Your task to perform on an android device: Search for a new bronzer Image 0: 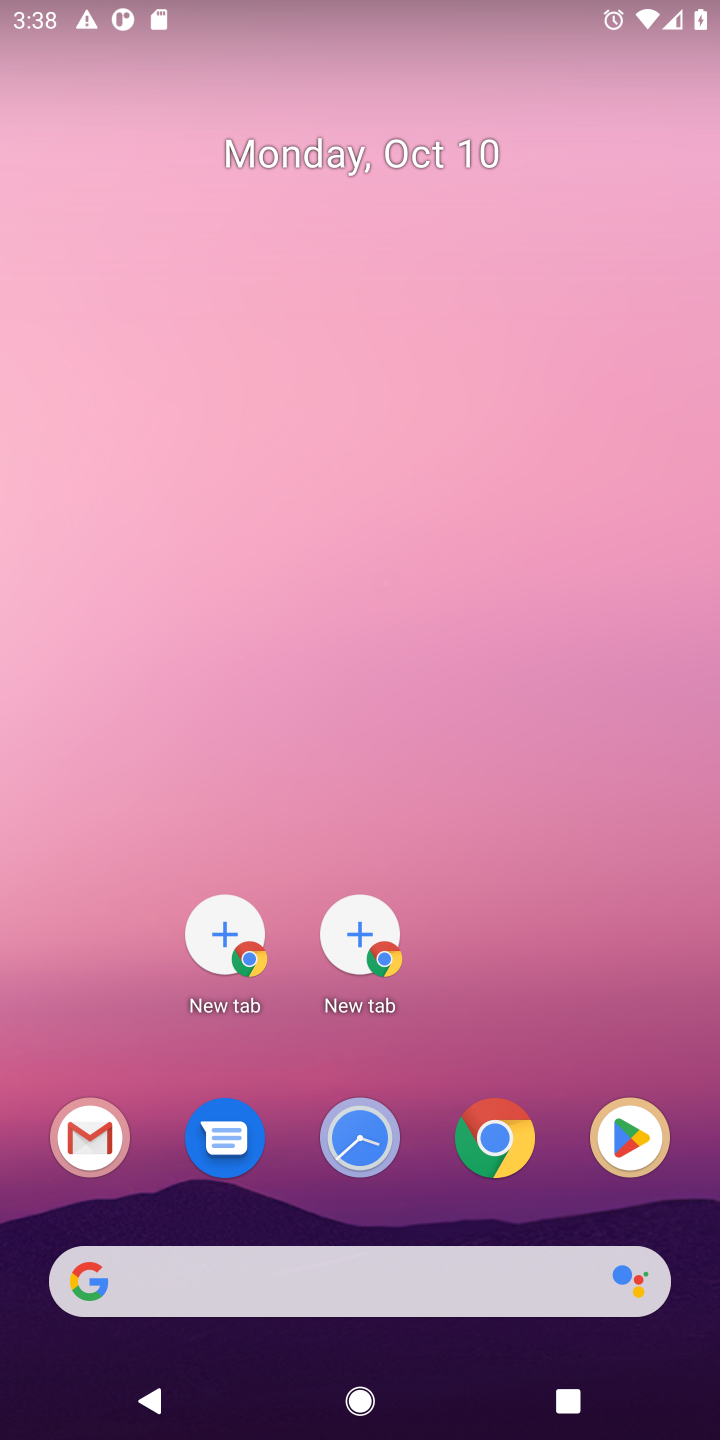
Step 0: click (509, 1152)
Your task to perform on an android device: Search for a new bronzer Image 1: 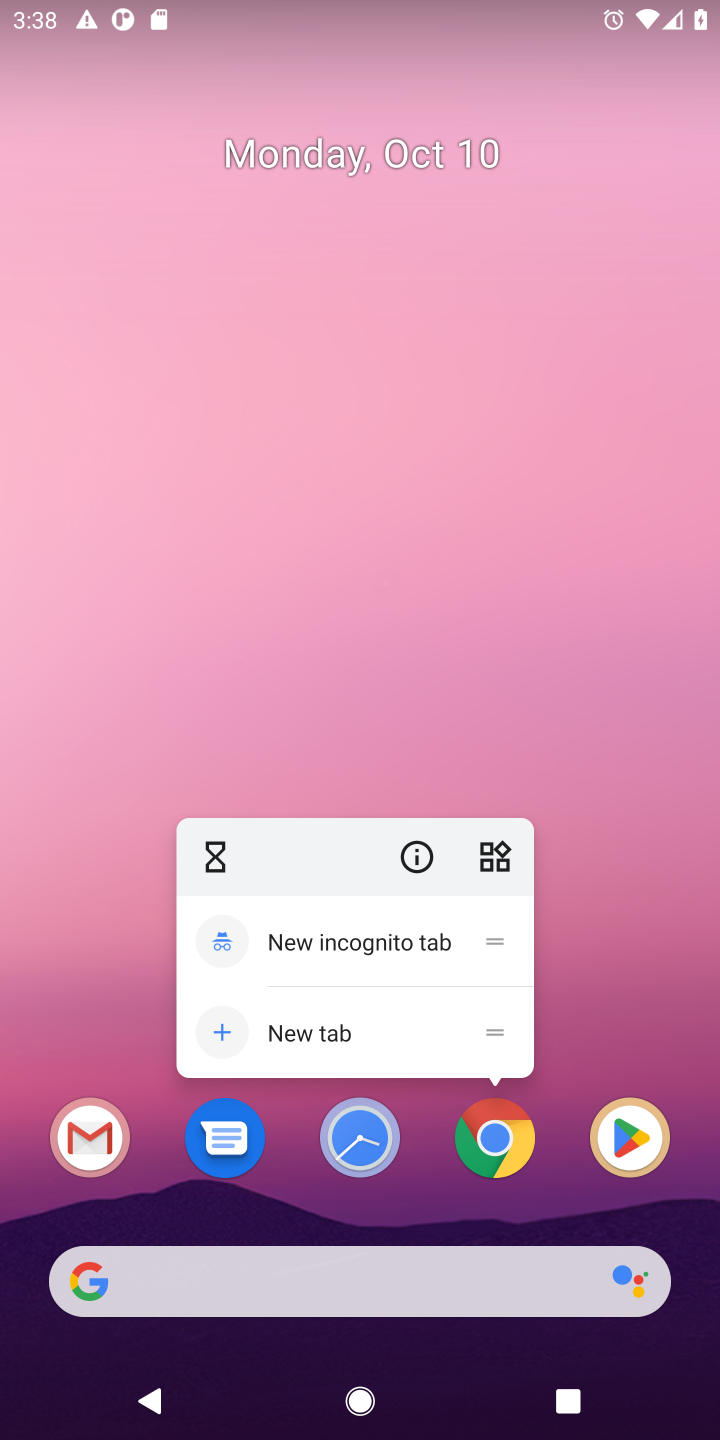
Step 1: click (491, 1151)
Your task to perform on an android device: Search for a new bronzer Image 2: 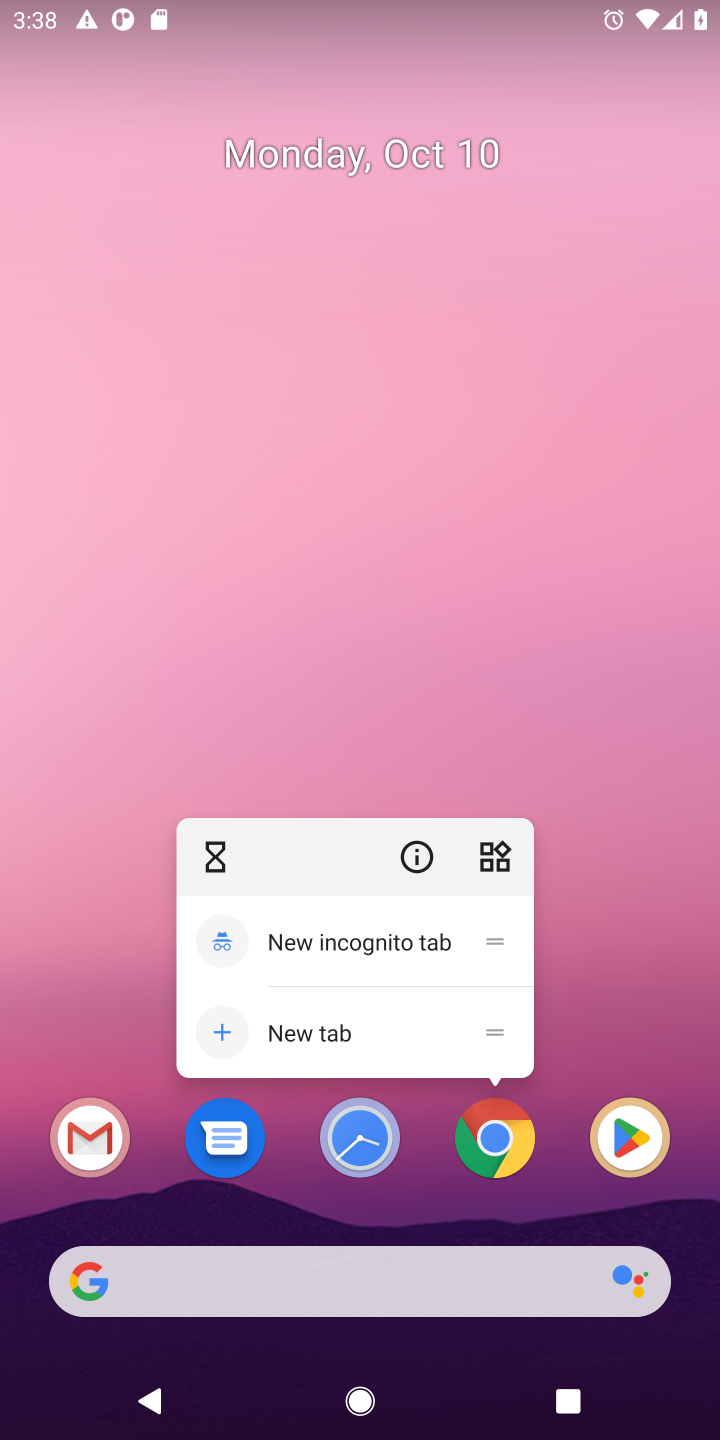
Step 2: click (501, 1152)
Your task to perform on an android device: Search for a new bronzer Image 3: 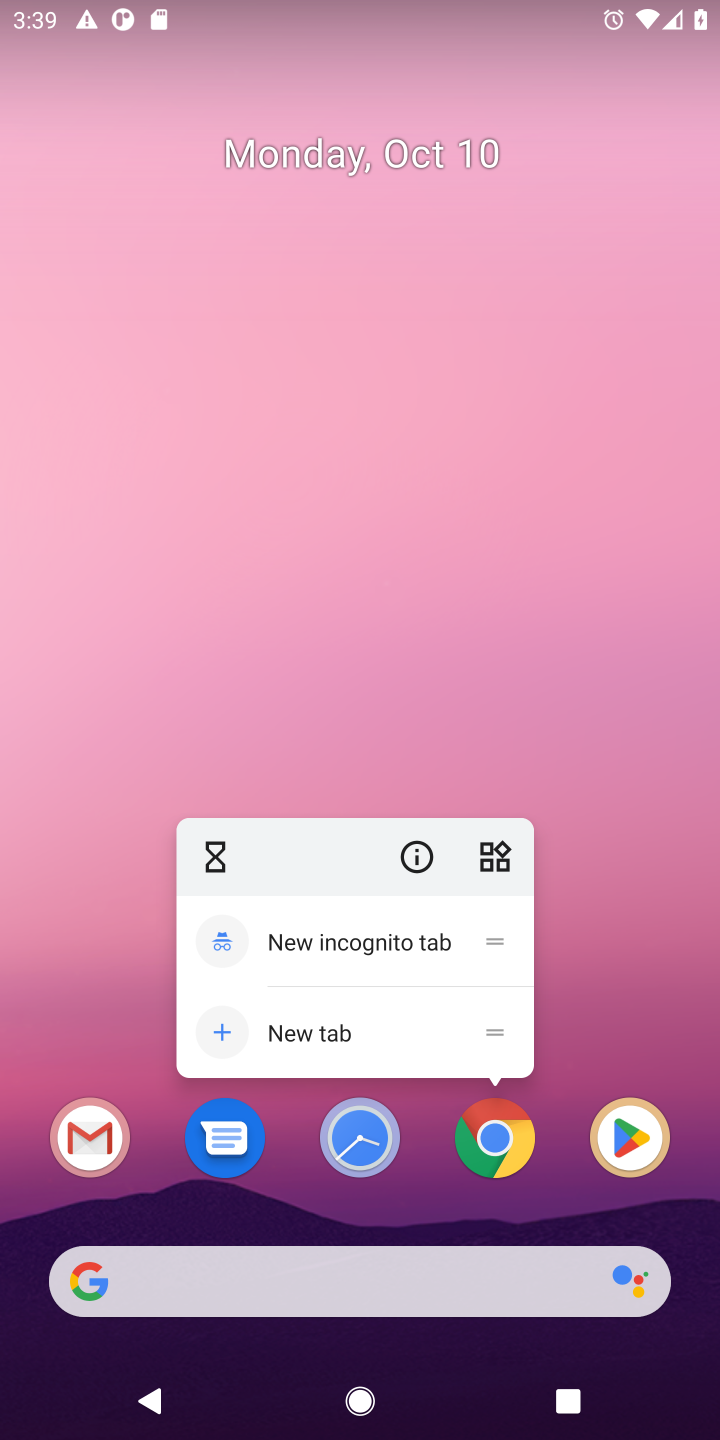
Step 3: click (507, 1177)
Your task to perform on an android device: Search for a new bronzer Image 4: 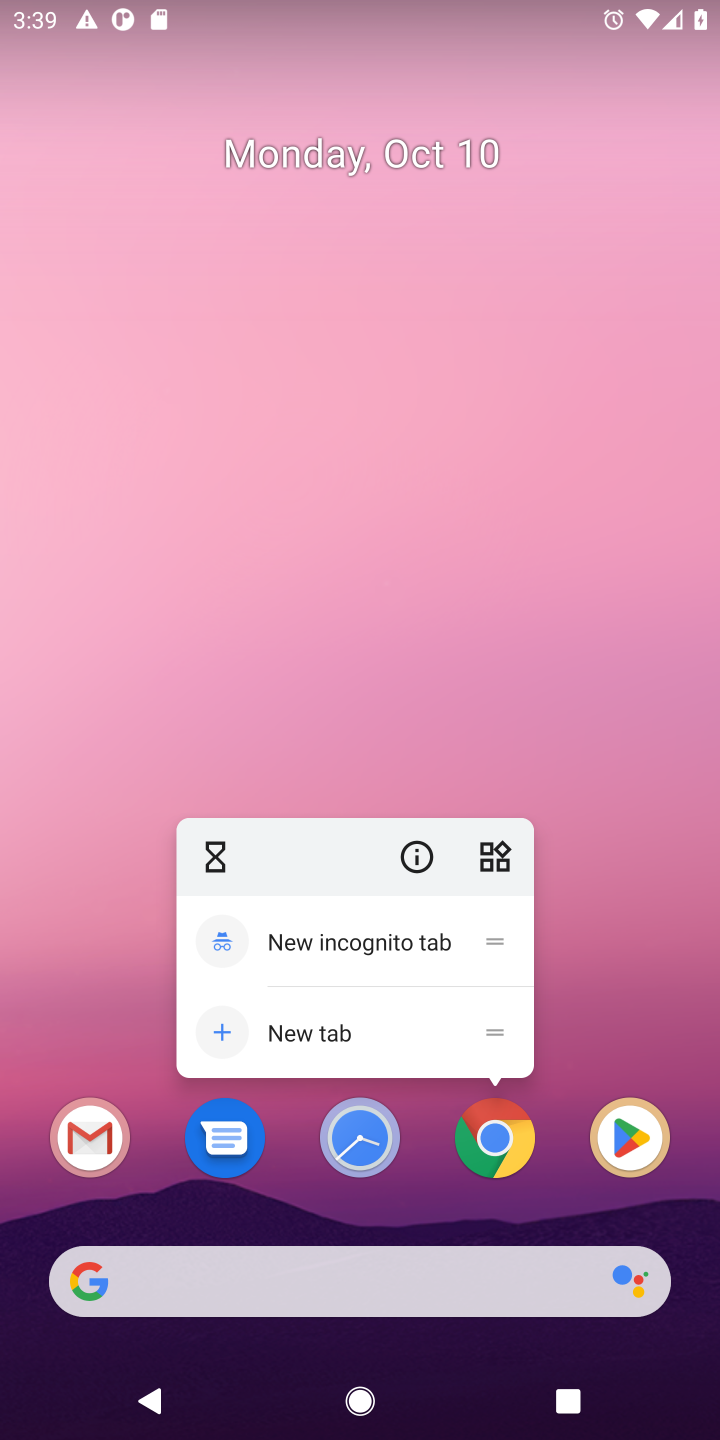
Step 4: click (507, 1160)
Your task to perform on an android device: Search for a new bronzer Image 5: 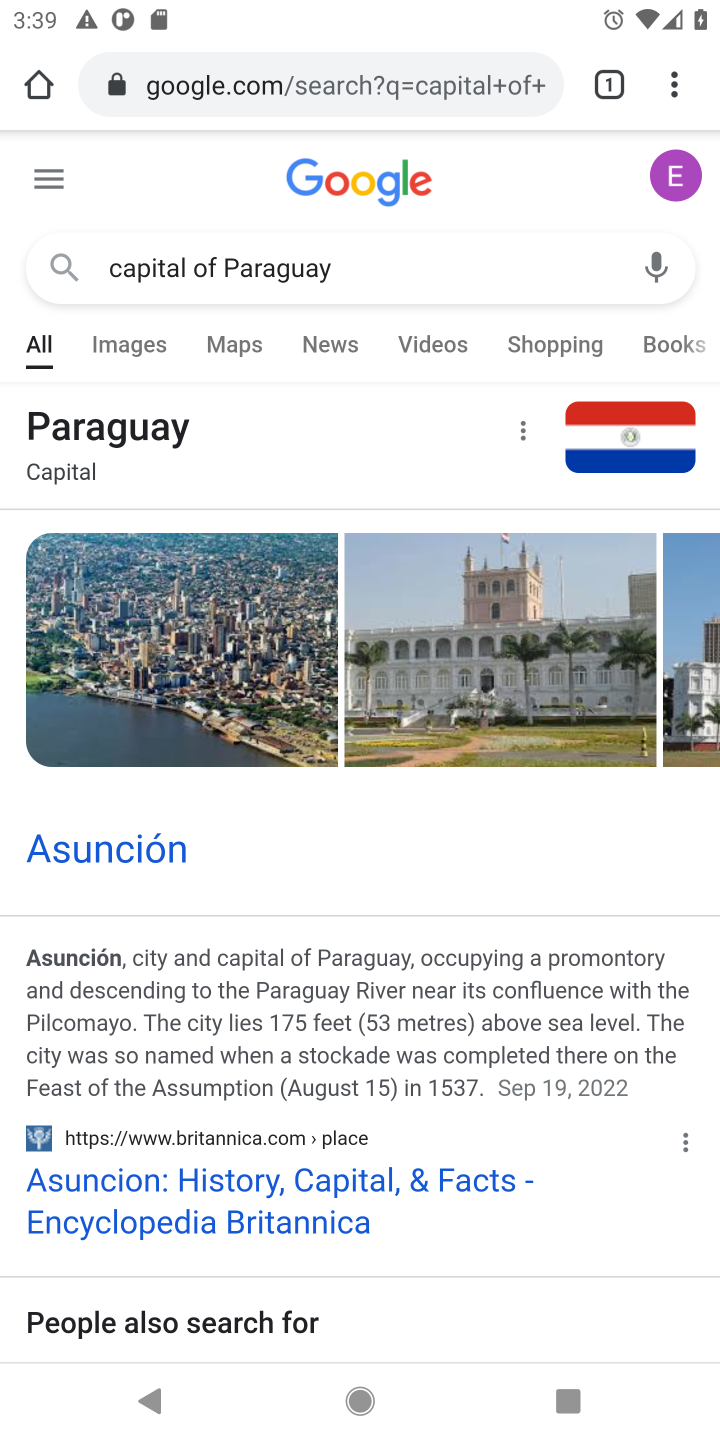
Step 5: click (355, 269)
Your task to perform on an android device: Search for a new bronzer Image 6: 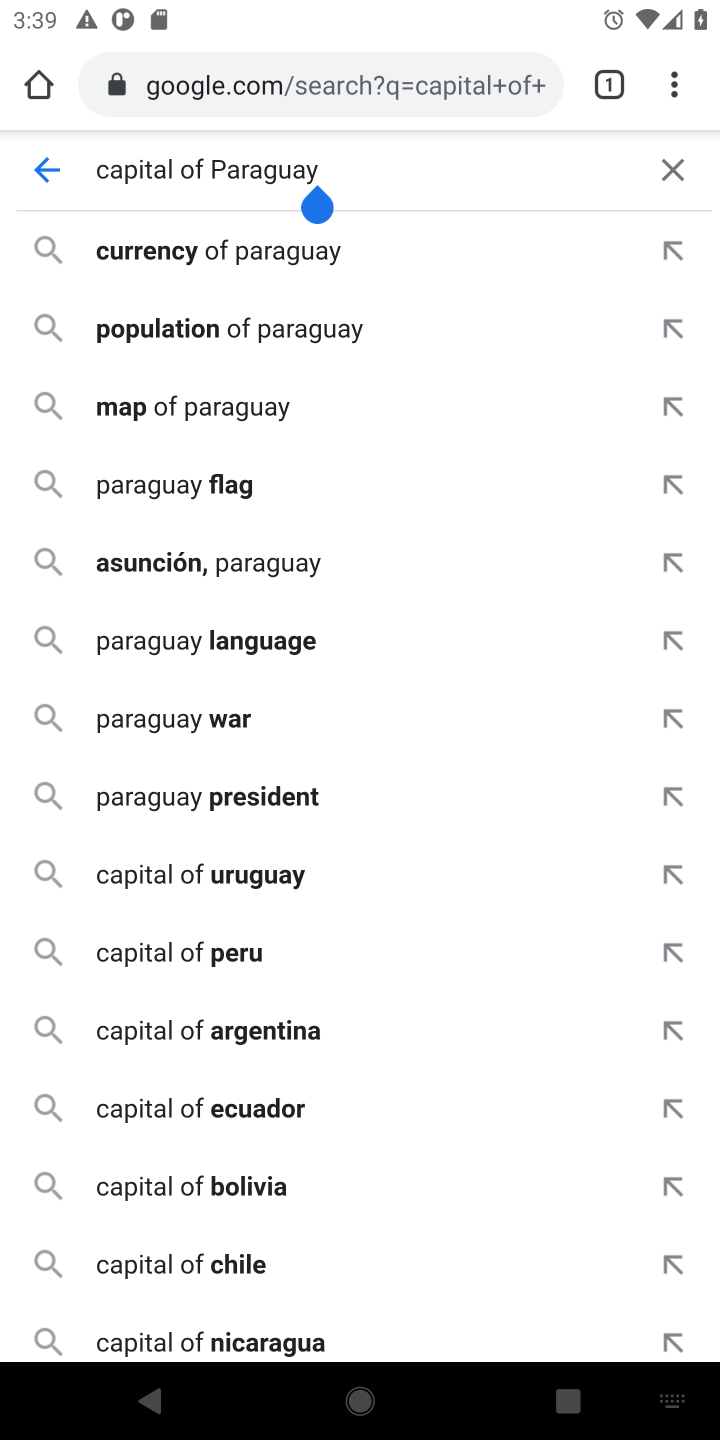
Step 6: click (669, 183)
Your task to perform on an android device: Search for a new bronzer Image 7: 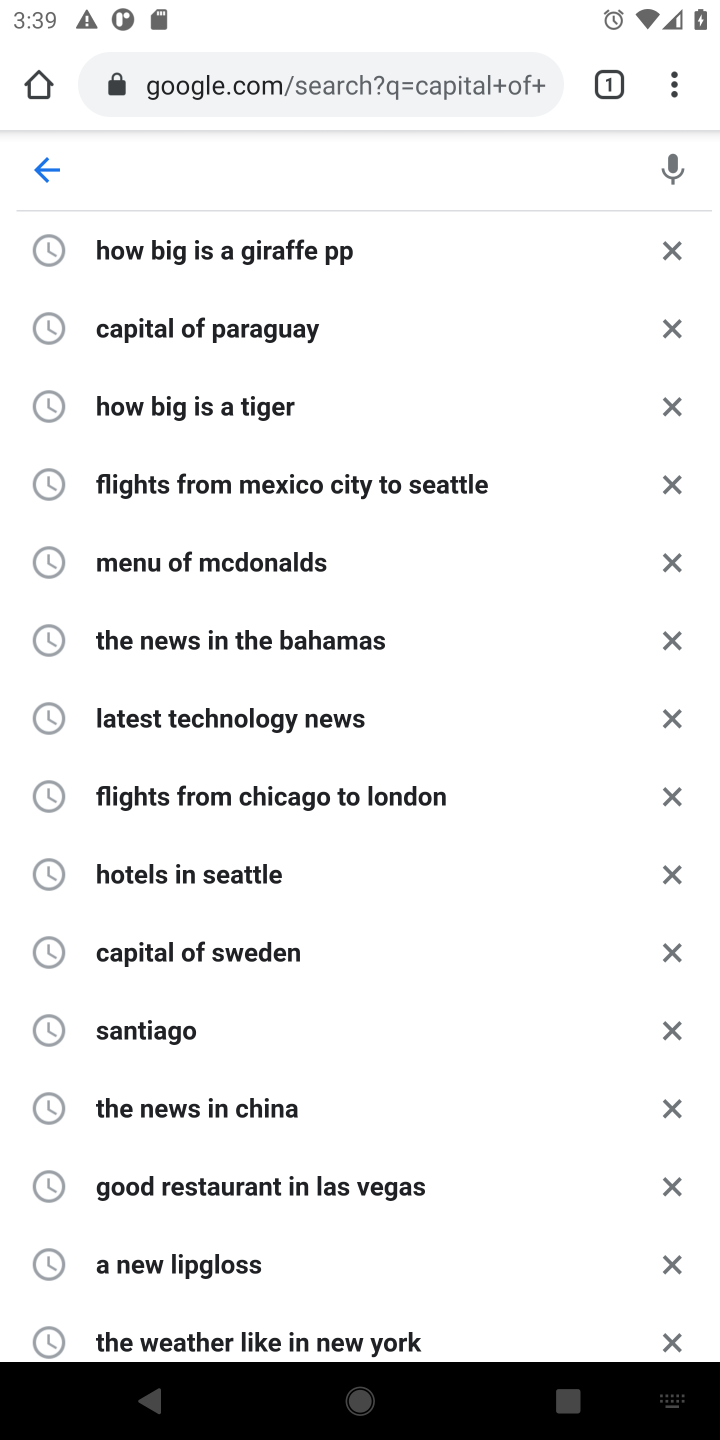
Step 7: type "new bronzer"
Your task to perform on an android device: Search for a new bronzer Image 8: 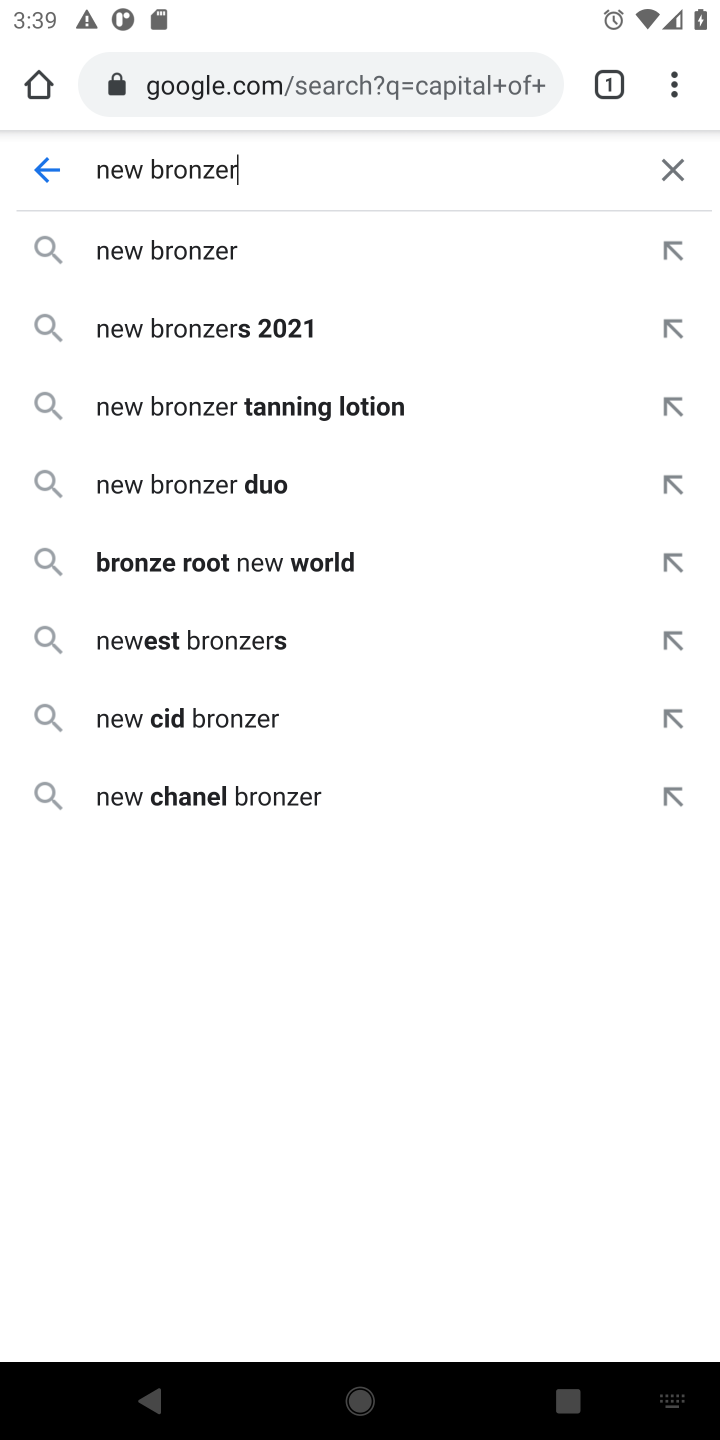
Step 8: type ""
Your task to perform on an android device: Search for a new bronzer Image 9: 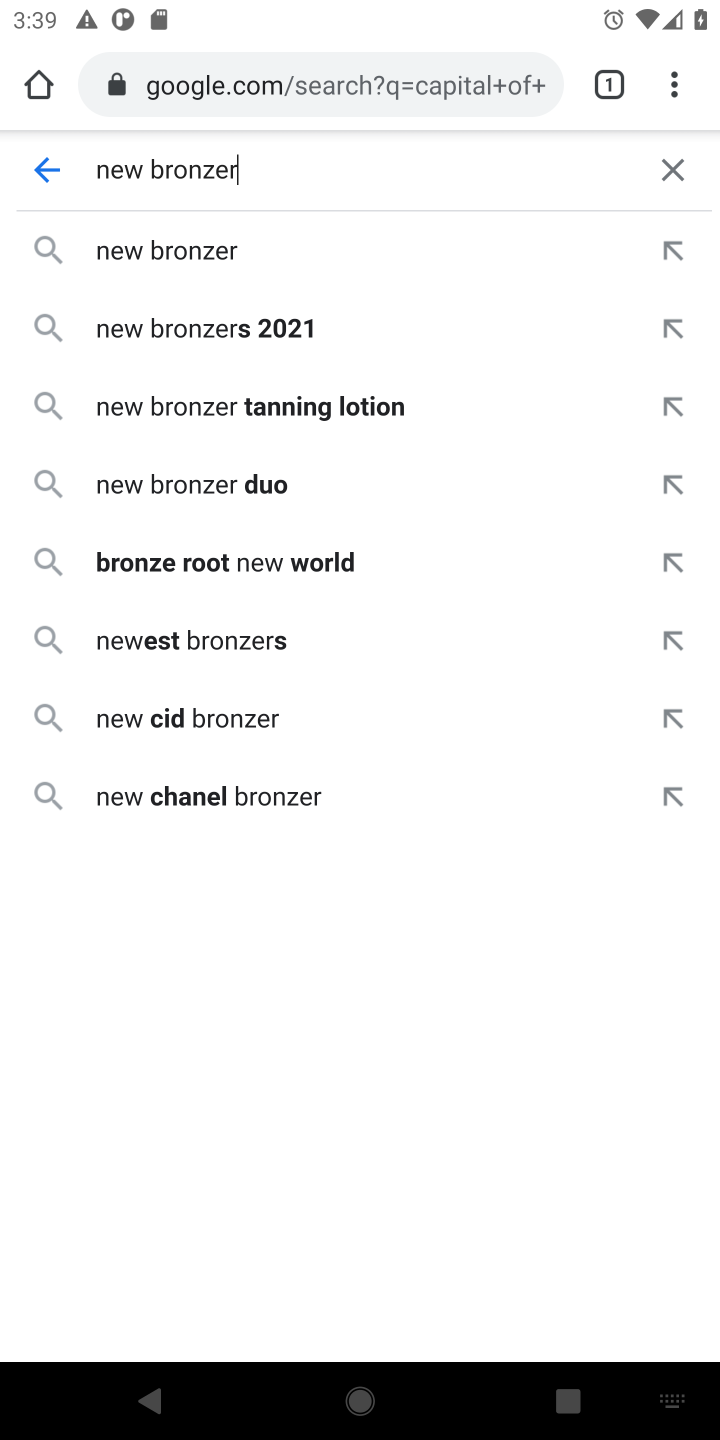
Step 9: press enter
Your task to perform on an android device: Search for a new bronzer Image 10: 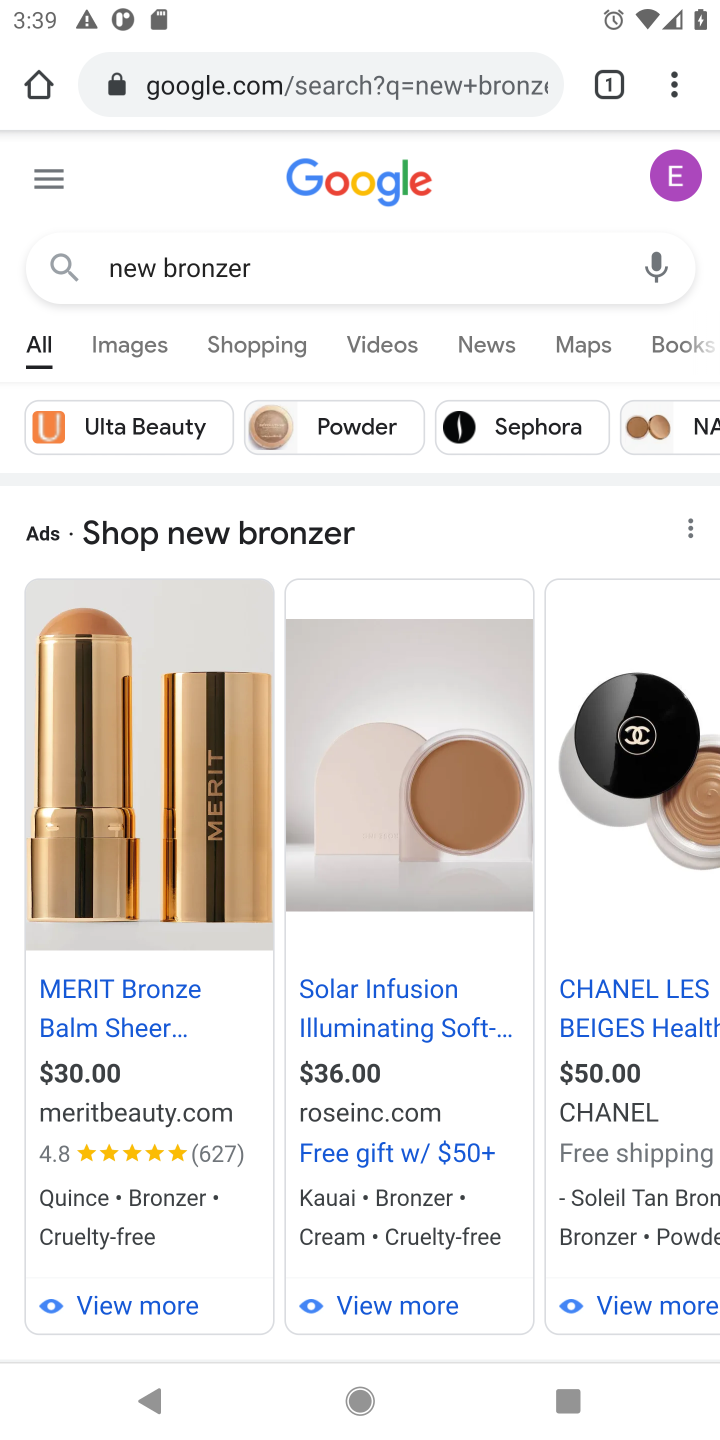
Step 10: drag from (360, 1191) to (360, 439)
Your task to perform on an android device: Search for a new bronzer Image 11: 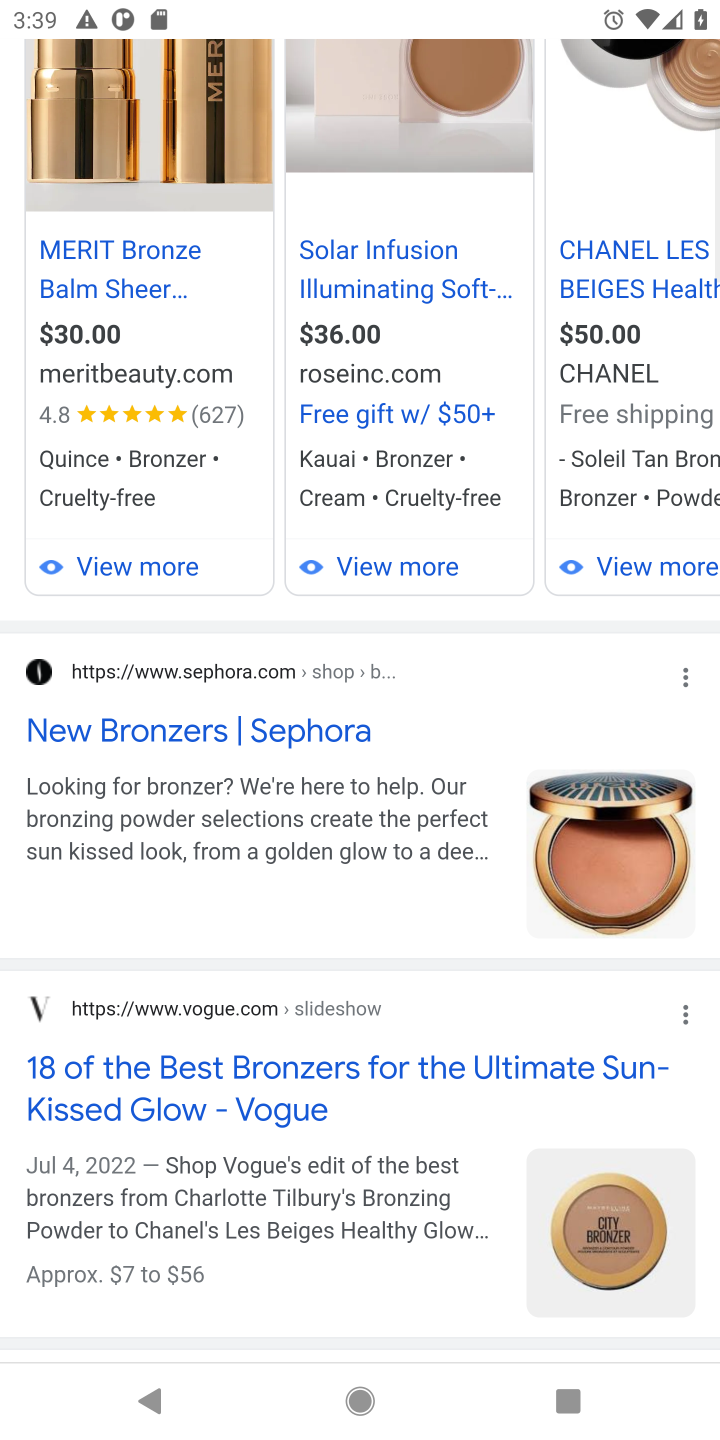
Step 11: drag from (225, 939) to (299, 508)
Your task to perform on an android device: Search for a new bronzer Image 12: 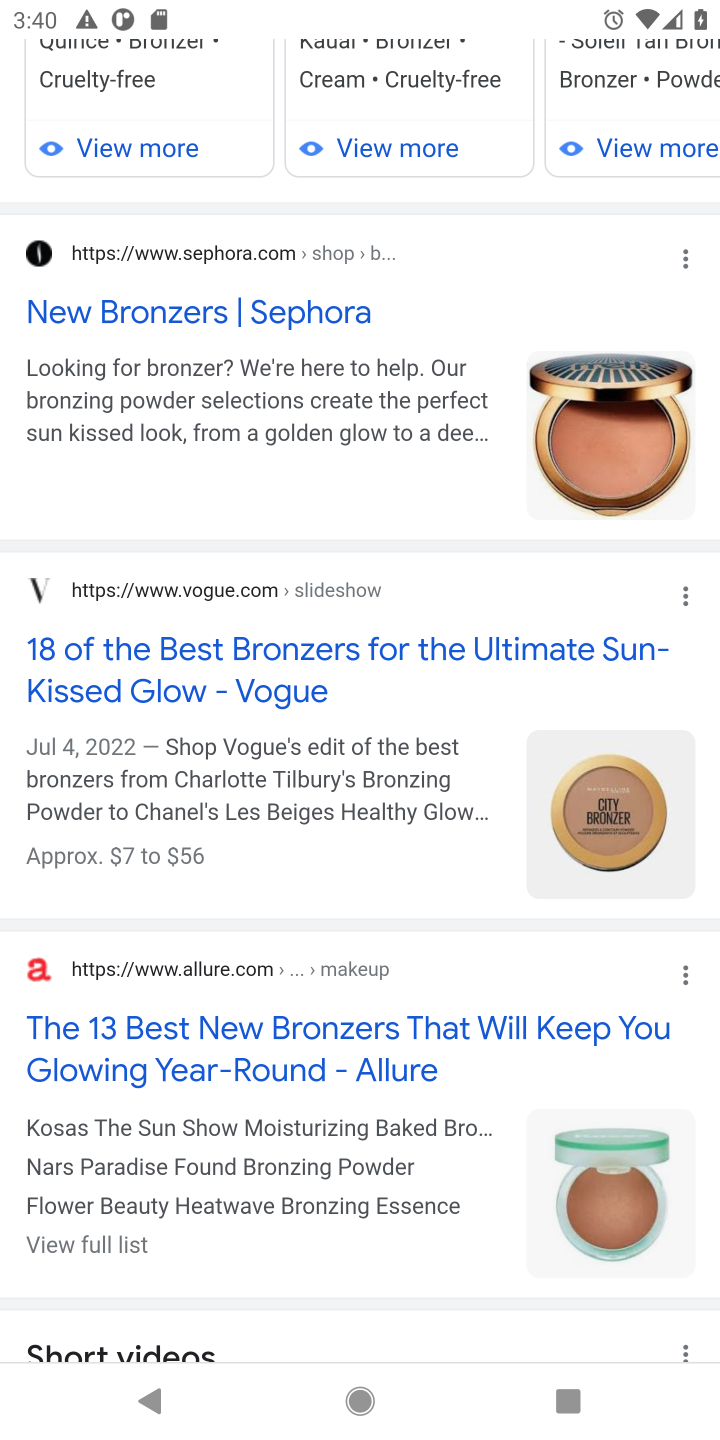
Step 12: drag from (301, 1024) to (352, 553)
Your task to perform on an android device: Search for a new bronzer Image 13: 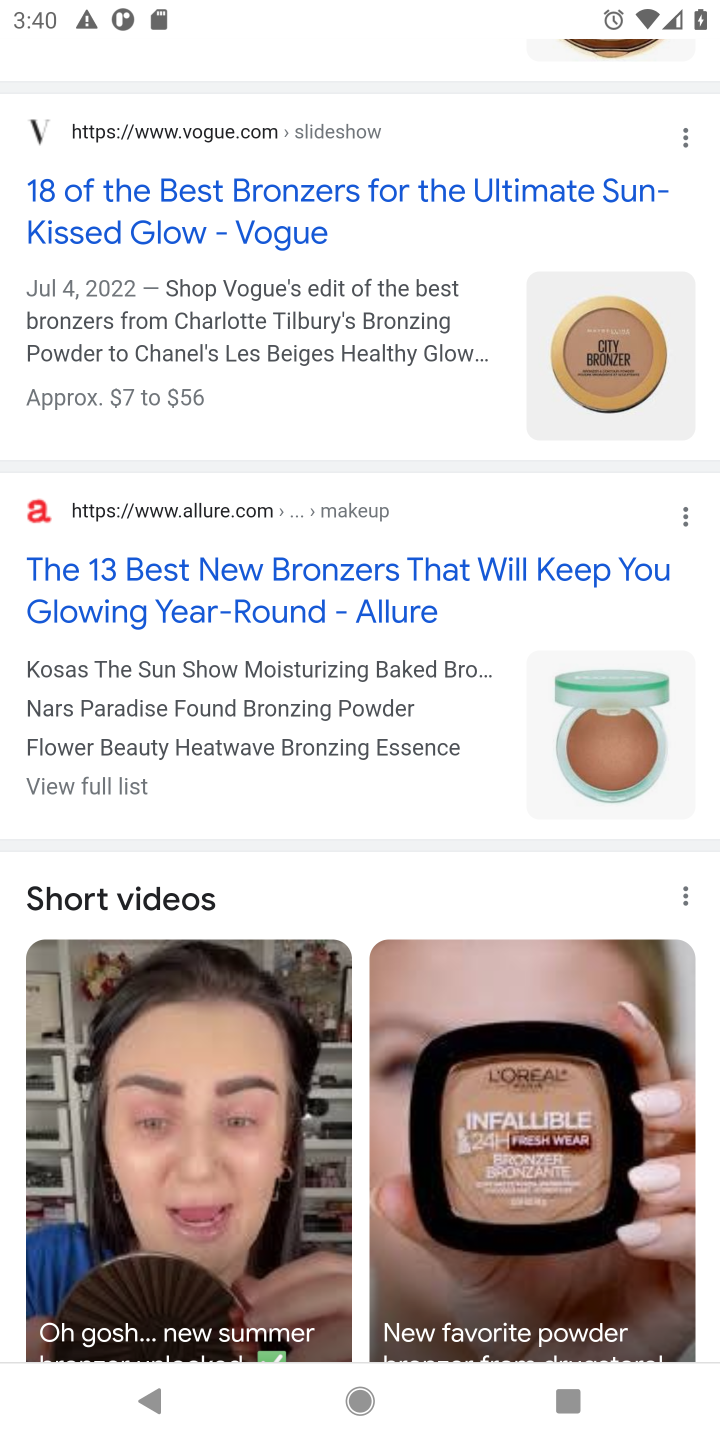
Step 13: drag from (278, 1086) to (289, 553)
Your task to perform on an android device: Search for a new bronzer Image 14: 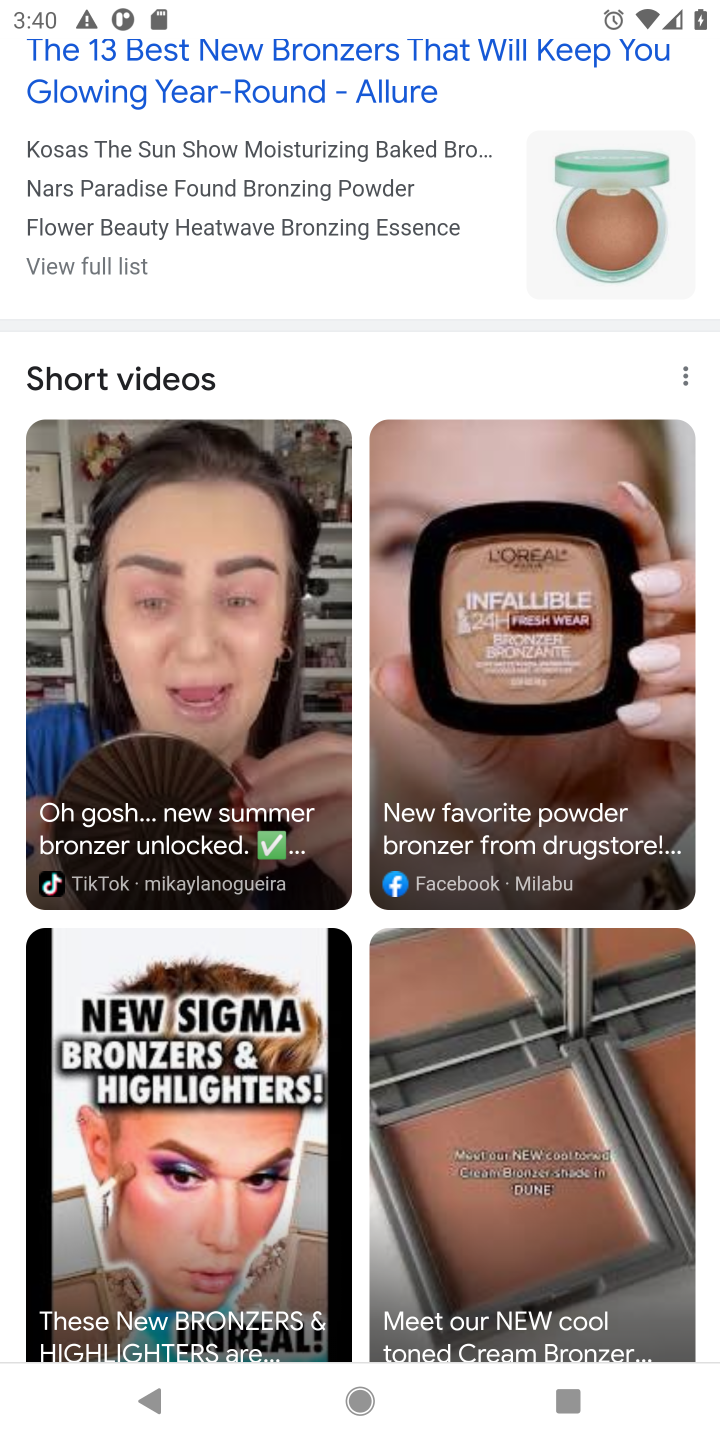
Step 14: drag from (355, 1033) to (339, 625)
Your task to perform on an android device: Search for a new bronzer Image 15: 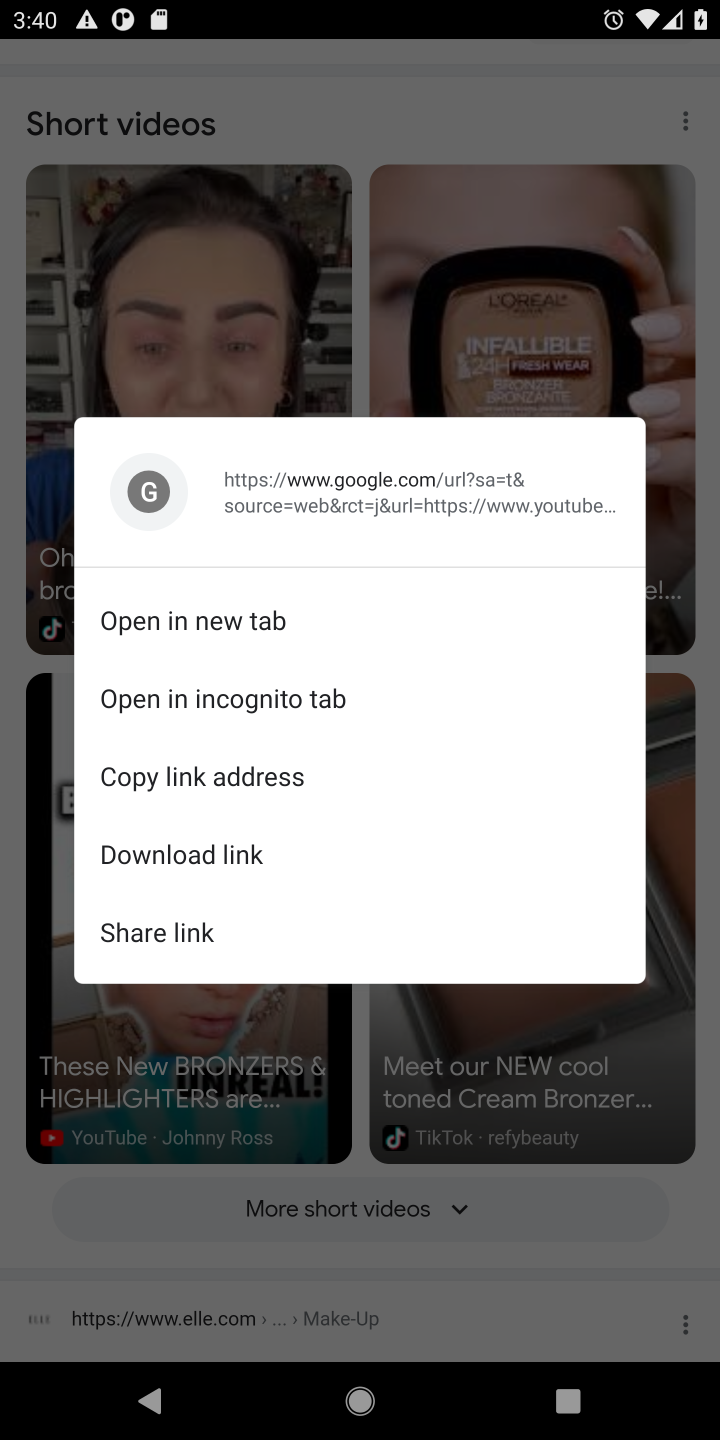
Step 15: click (342, 1151)
Your task to perform on an android device: Search for a new bronzer Image 16: 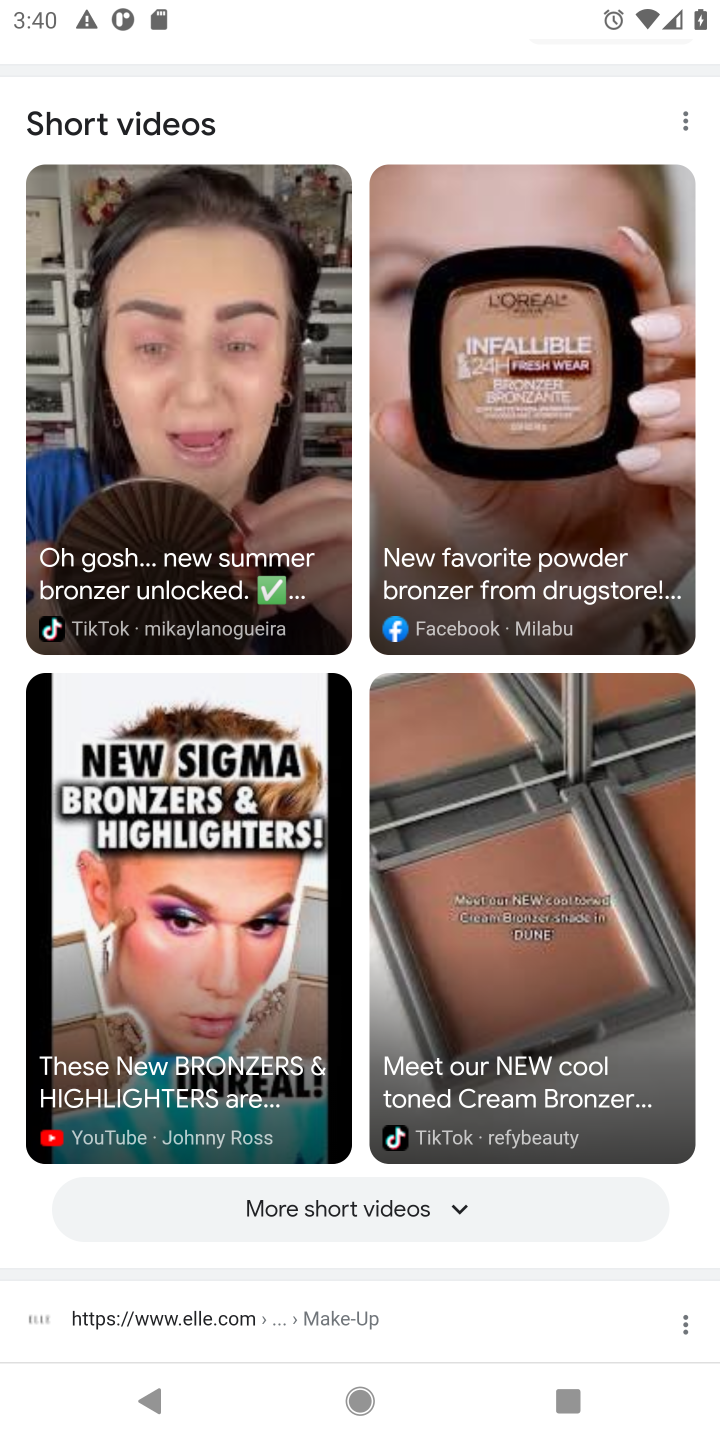
Step 16: task complete